Your task to perform on an android device: read, delete, or share a saved page in the chrome app Image 0: 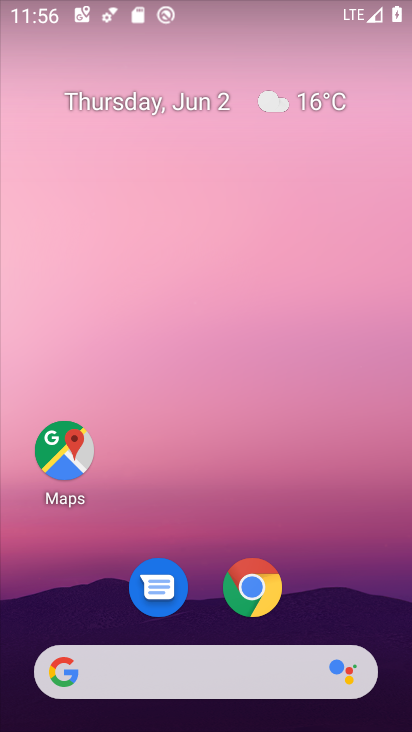
Step 0: click (257, 594)
Your task to perform on an android device: read, delete, or share a saved page in the chrome app Image 1: 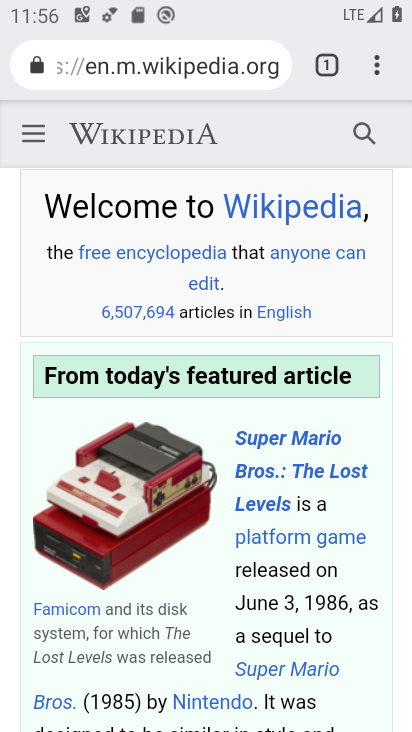
Step 1: click (376, 69)
Your task to perform on an android device: read, delete, or share a saved page in the chrome app Image 2: 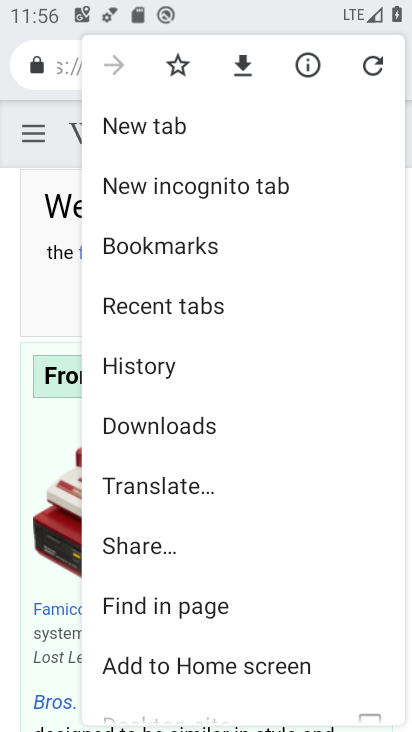
Step 2: click (200, 416)
Your task to perform on an android device: read, delete, or share a saved page in the chrome app Image 3: 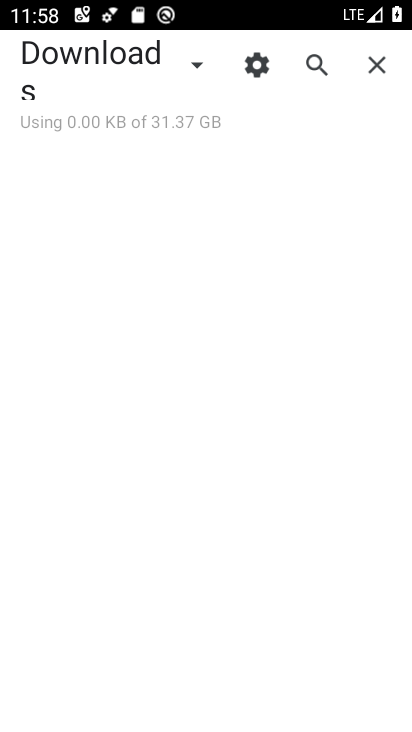
Step 3: task complete